Your task to perform on an android device: Open the phone app and click the voicemail tab. Image 0: 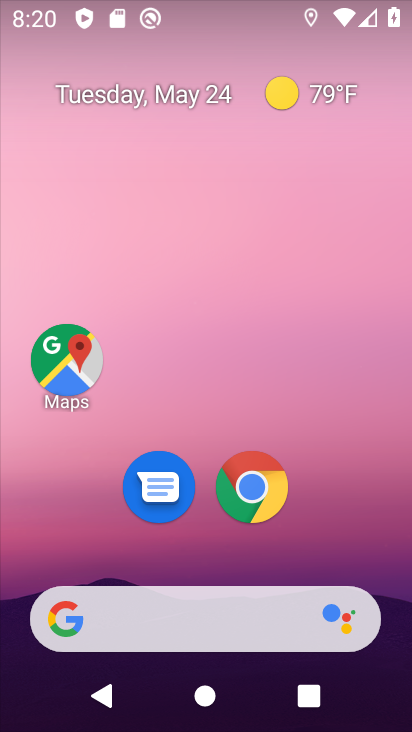
Step 0: drag from (315, 550) to (362, 59)
Your task to perform on an android device: Open the phone app and click the voicemail tab. Image 1: 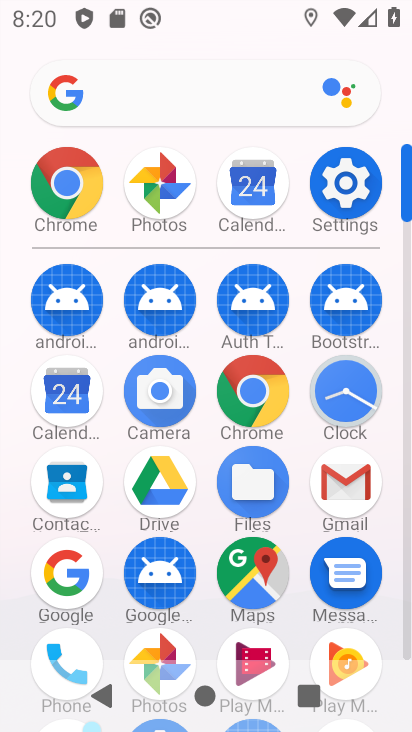
Step 1: drag from (306, 278) to (342, 0)
Your task to perform on an android device: Open the phone app and click the voicemail tab. Image 2: 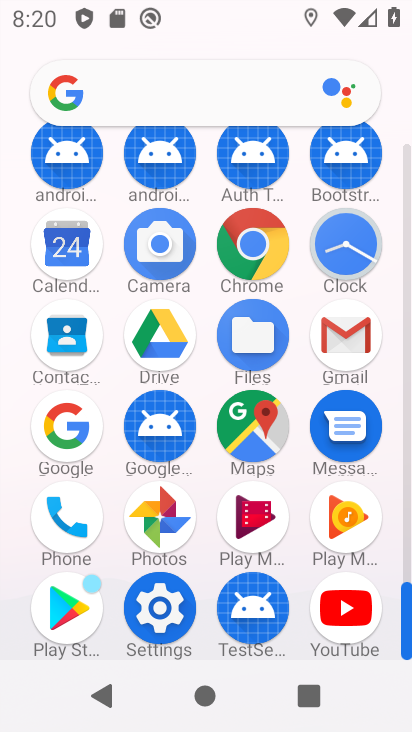
Step 2: click (61, 510)
Your task to perform on an android device: Open the phone app and click the voicemail tab. Image 3: 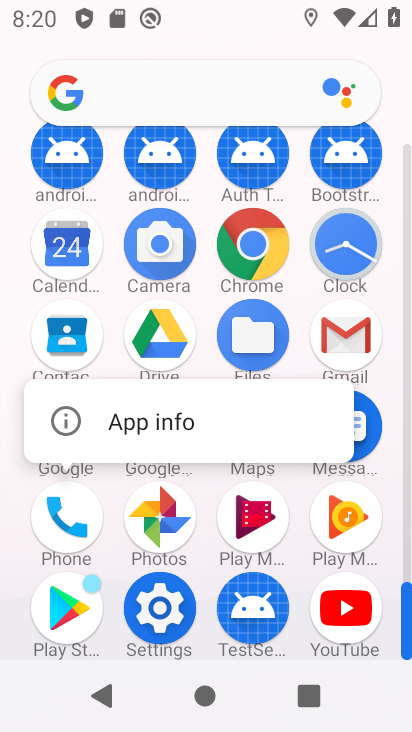
Step 3: click (61, 510)
Your task to perform on an android device: Open the phone app and click the voicemail tab. Image 4: 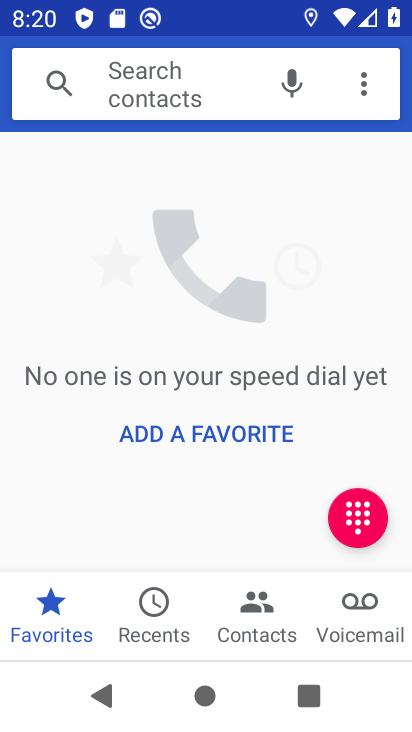
Step 4: click (349, 633)
Your task to perform on an android device: Open the phone app and click the voicemail tab. Image 5: 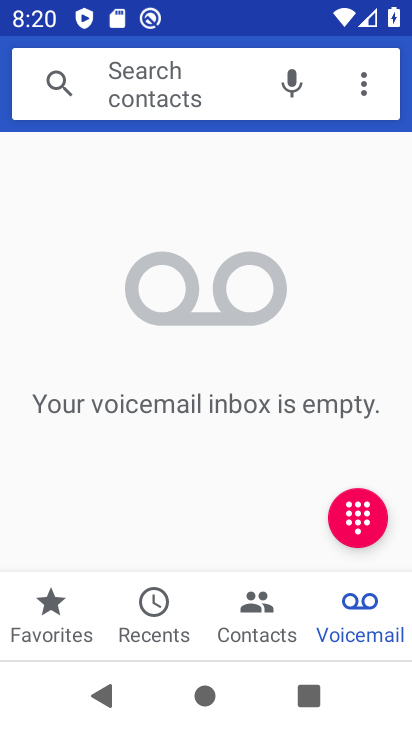
Step 5: task complete